Your task to perform on an android device: Is it going to rain today? Image 0: 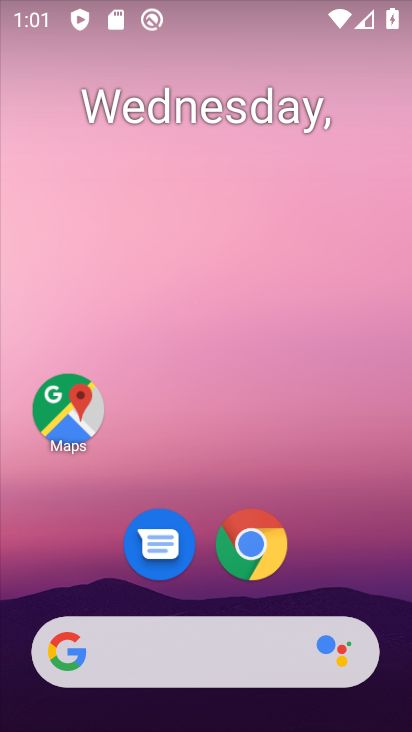
Step 0: drag from (346, 576) to (245, 79)
Your task to perform on an android device: Is it going to rain today? Image 1: 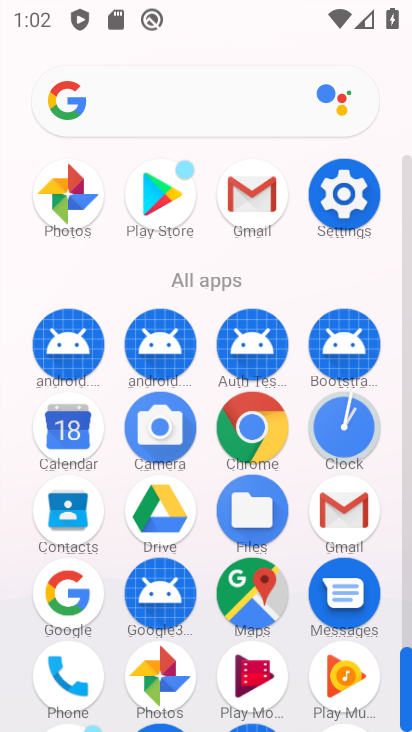
Step 1: click (74, 599)
Your task to perform on an android device: Is it going to rain today? Image 2: 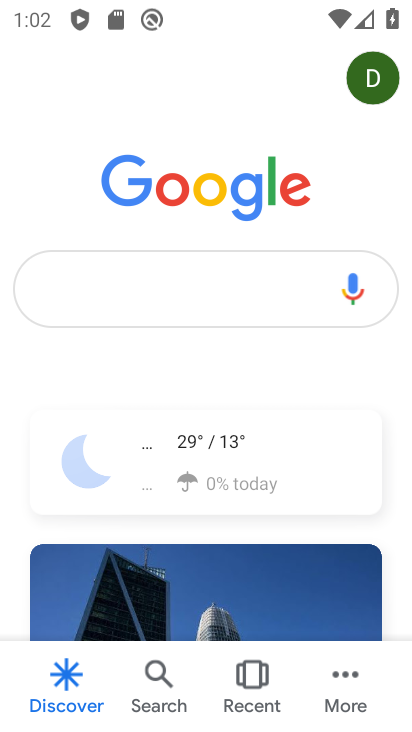
Step 2: click (218, 437)
Your task to perform on an android device: Is it going to rain today? Image 3: 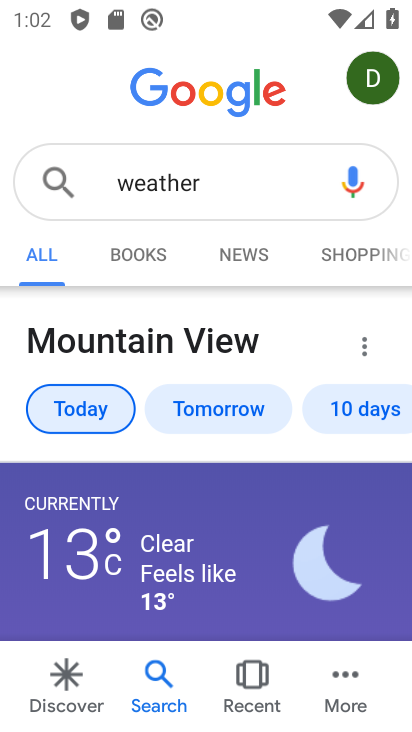
Step 3: task complete